Your task to perform on an android device: Search for vegetarian restaurants on Maps Image 0: 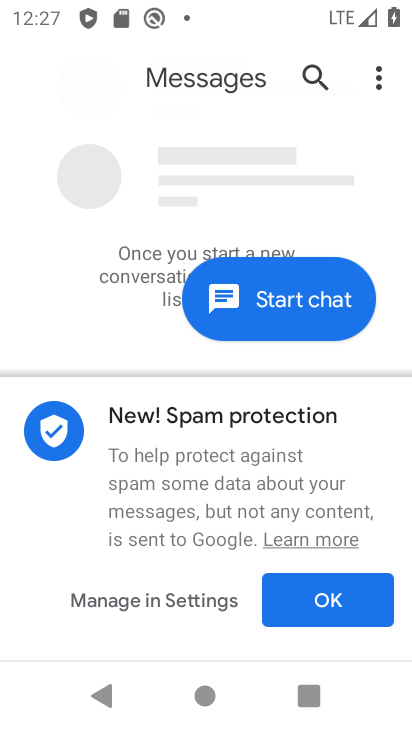
Step 0: press back button
Your task to perform on an android device: Search for vegetarian restaurants on Maps Image 1: 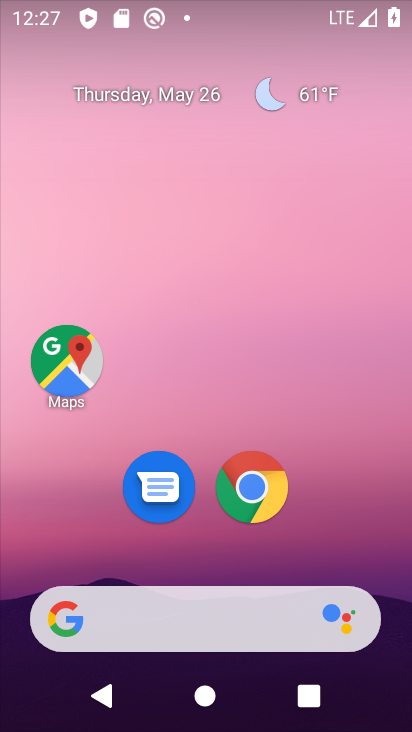
Step 1: drag from (275, 696) to (161, 35)
Your task to perform on an android device: Search for vegetarian restaurants on Maps Image 2: 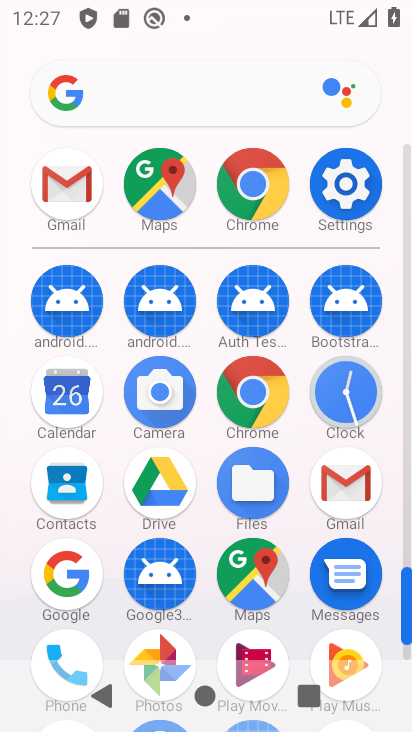
Step 2: click (247, 581)
Your task to perform on an android device: Search for vegetarian restaurants on Maps Image 3: 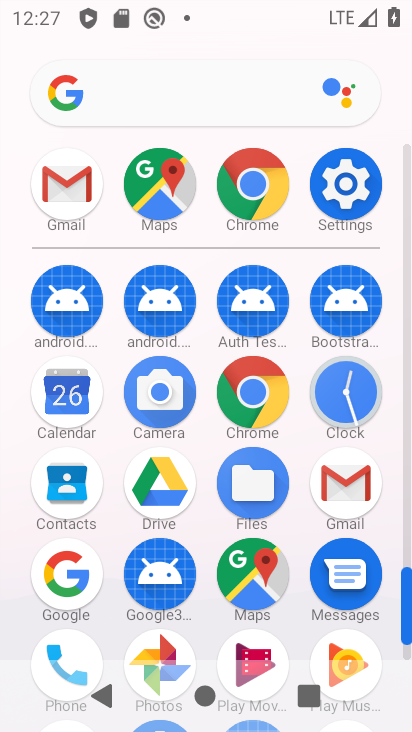
Step 3: click (248, 580)
Your task to perform on an android device: Search for vegetarian restaurants on Maps Image 4: 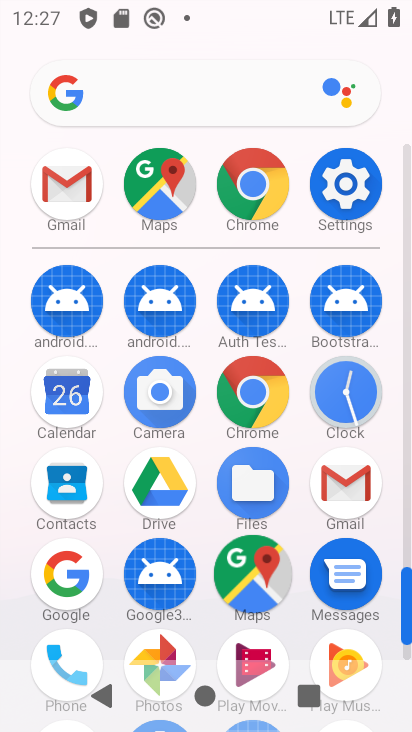
Step 4: click (249, 579)
Your task to perform on an android device: Search for vegetarian restaurants on Maps Image 5: 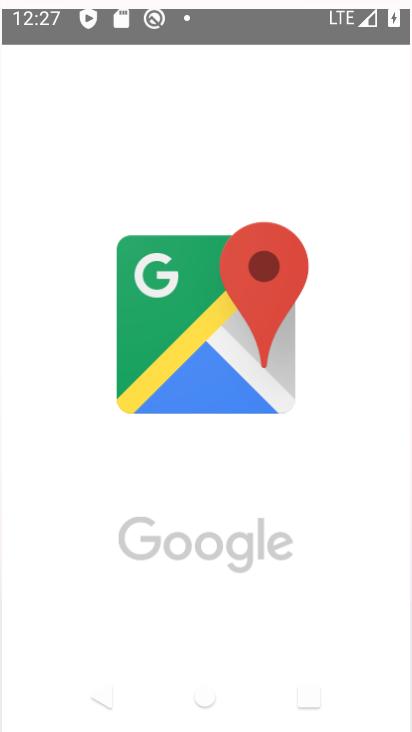
Step 5: click (248, 578)
Your task to perform on an android device: Search for vegetarian restaurants on Maps Image 6: 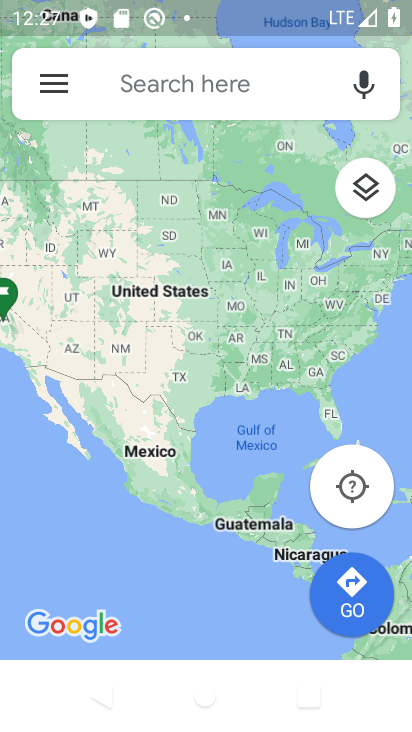
Step 6: click (115, 82)
Your task to perform on an android device: Search for vegetarian restaurants on Maps Image 7: 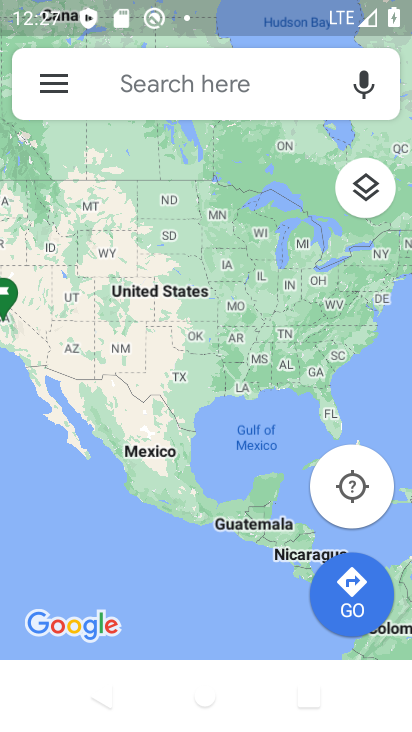
Step 7: click (141, 82)
Your task to perform on an android device: Search for vegetarian restaurants on Maps Image 8: 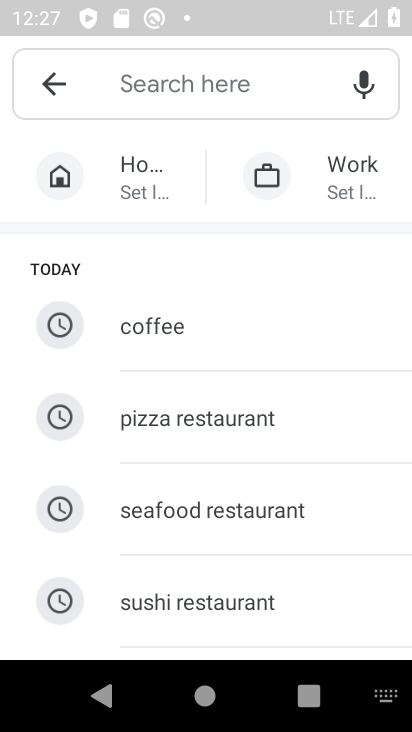
Step 8: type "vegetarian restuarants"
Your task to perform on an android device: Search for vegetarian restaurants on Maps Image 9: 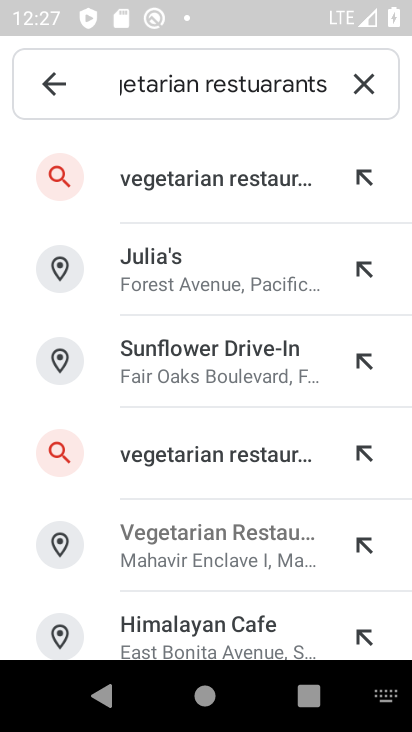
Step 9: click (219, 184)
Your task to perform on an android device: Search for vegetarian restaurants on Maps Image 10: 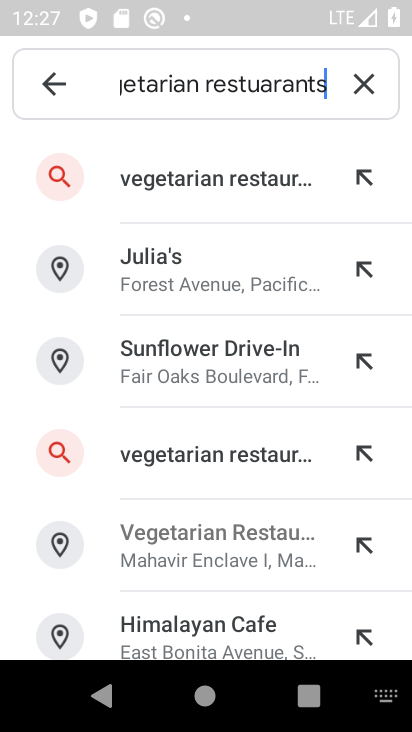
Step 10: click (220, 183)
Your task to perform on an android device: Search for vegetarian restaurants on Maps Image 11: 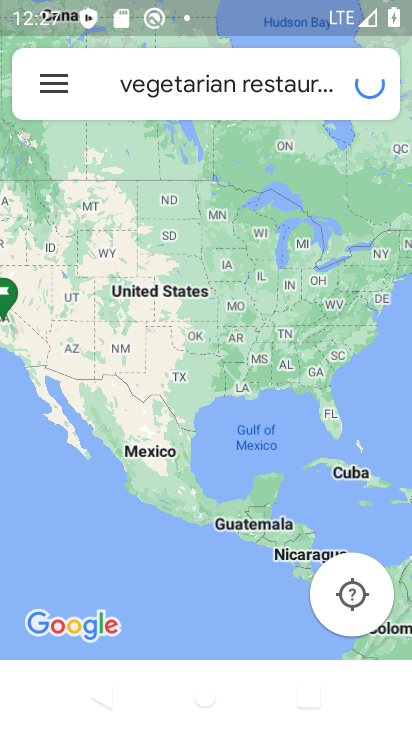
Step 11: click (224, 181)
Your task to perform on an android device: Search for vegetarian restaurants on Maps Image 12: 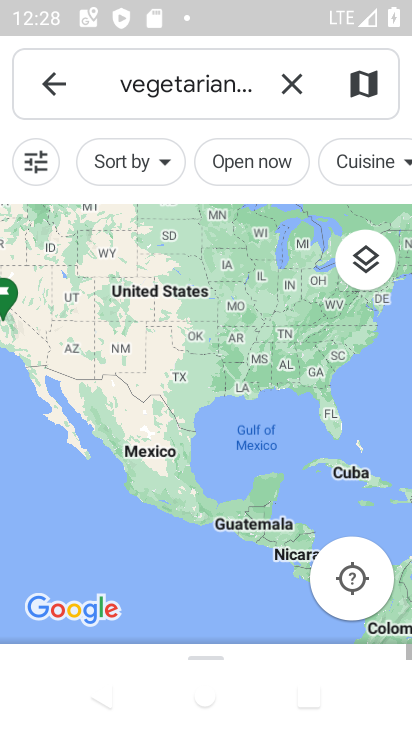
Step 12: task complete